Your task to perform on an android device: Empty the shopping cart on target.com. Search for "panasonic triple a" on target.com, select the first entry, add it to the cart, then select checkout. Image 0: 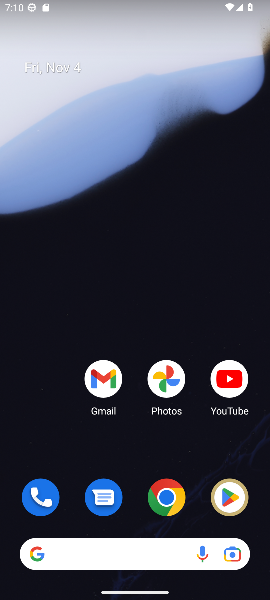
Step 0: click (169, 514)
Your task to perform on an android device: Empty the shopping cart on target.com. Search for "panasonic triple a" on target.com, select the first entry, add it to the cart, then select checkout. Image 1: 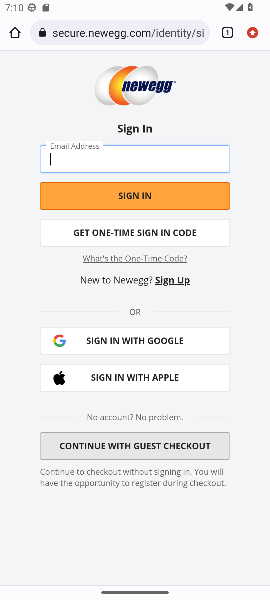
Step 1: click (111, 28)
Your task to perform on an android device: Empty the shopping cart on target.com. Search for "panasonic triple a" on target.com, select the first entry, add it to the cart, then select checkout. Image 2: 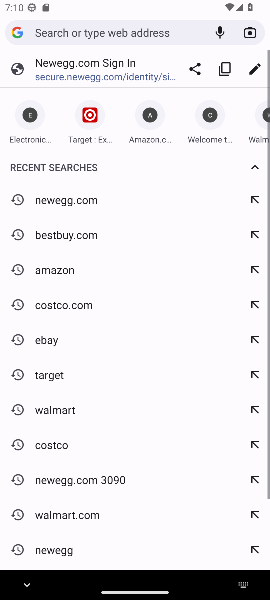
Step 2: click (84, 124)
Your task to perform on an android device: Empty the shopping cart on target.com. Search for "panasonic triple a" on target.com, select the first entry, add it to the cart, then select checkout. Image 3: 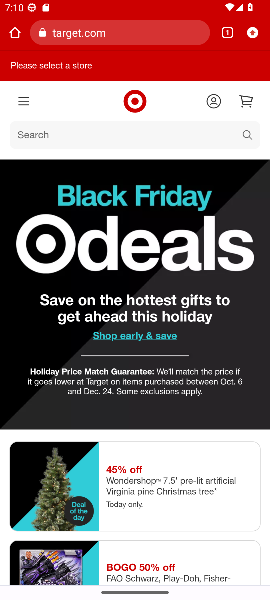
Step 3: click (246, 100)
Your task to perform on an android device: Empty the shopping cart on target.com. Search for "panasonic triple a" on target.com, select the first entry, add it to the cart, then select checkout. Image 4: 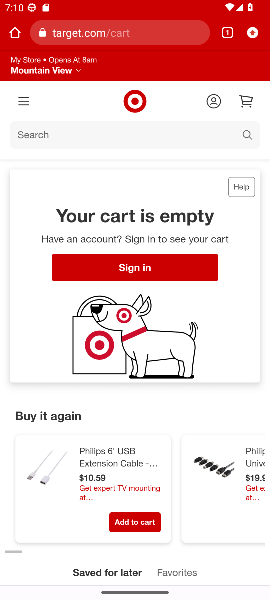
Step 4: click (37, 136)
Your task to perform on an android device: Empty the shopping cart on target.com. Search for "panasonic triple a" on target.com, select the first entry, add it to the cart, then select checkout. Image 5: 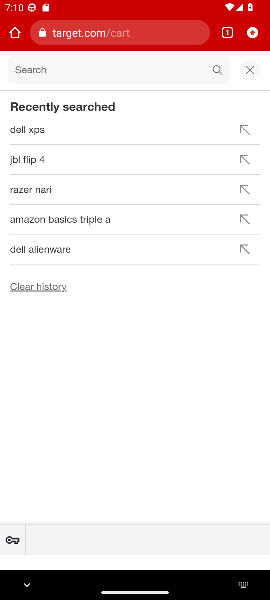
Step 5: type "panasonic triple a"
Your task to perform on an android device: Empty the shopping cart on target.com. Search for "panasonic triple a" on target.com, select the first entry, add it to the cart, then select checkout. Image 6: 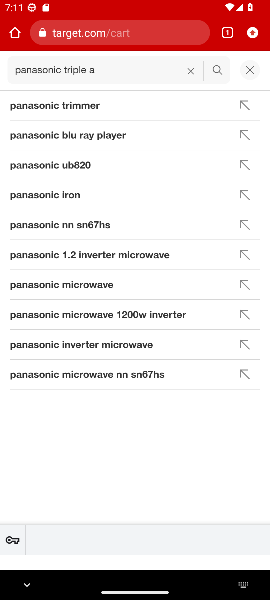
Step 6: click (219, 68)
Your task to perform on an android device: Empty the shopping cart on target.com. Search for "panasonic triple a" on target.com, select the first entry, add it to the cart, then select checkout. Image 7: 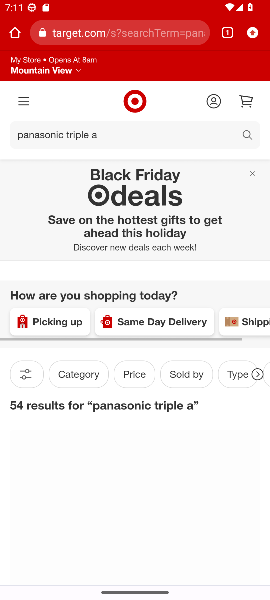
Step 7: drag from (129, 416) to (138, 210)
Your task to perform on an android device: Empty the shopping cart on target.com. Search for "panasonic triple a" on target.com, select the first entry, add it to the cart, then select checkout. Image 8: 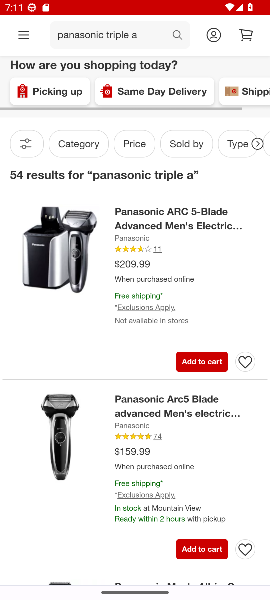
Step 8: click (96, 256)
Your task to perform on an android device: Empty the shopping cart on target.com. Search for "panasonic triple a" on target.com, select the first entry, add it to the cart, then select checkout. Image 9: 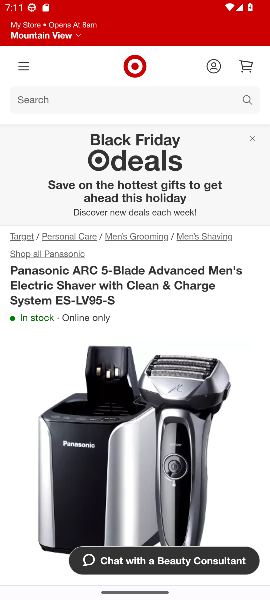
Step 9: task complete